Your task to perform on an android device: Open internet settings Image 0: 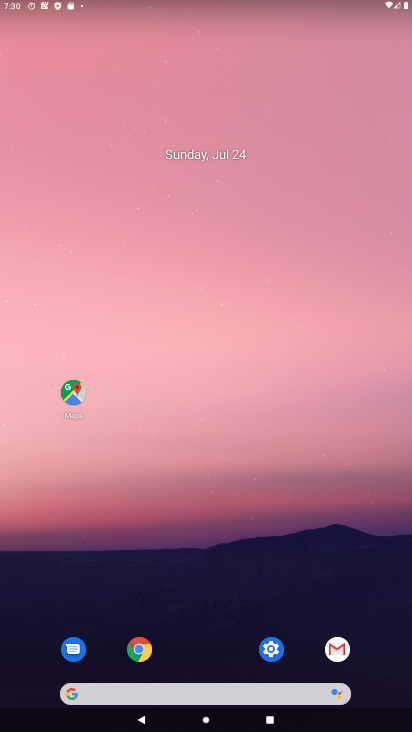
Step 0: click (269, 659)
Your task to perform on an android device: Open internet settings Image 1: 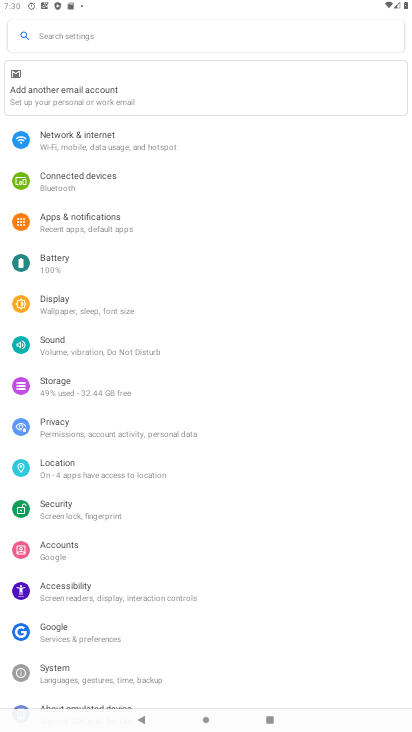
Step 1: click (81, 145)
Your task to perform on an android device: Open internet settings Image 2: 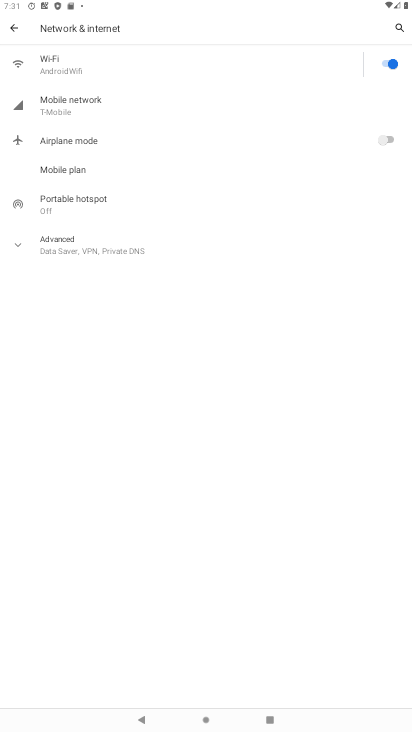
Step 2: task complete